Your task to perform on an android device: What is the recent news? Image 0: 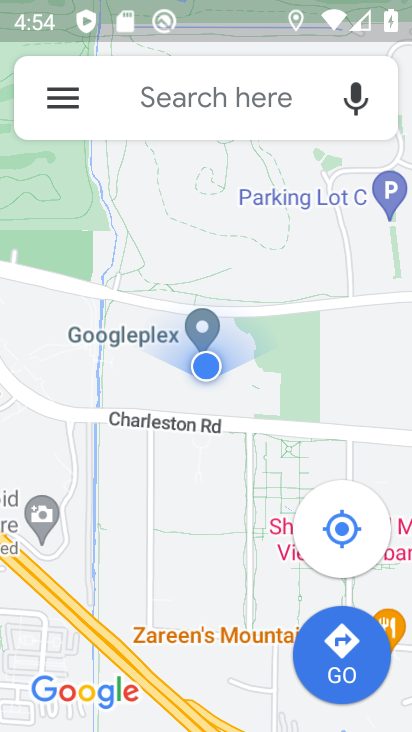
Step 0: press home button
Your task to perform on an android device: What is the recent news? Image 1: 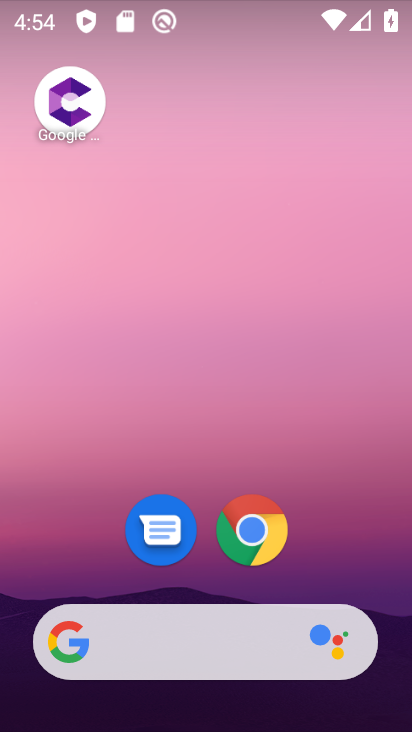
Step 1: click (198, 632)
Your task to perform on an android device: What is the recent news? Image 2: 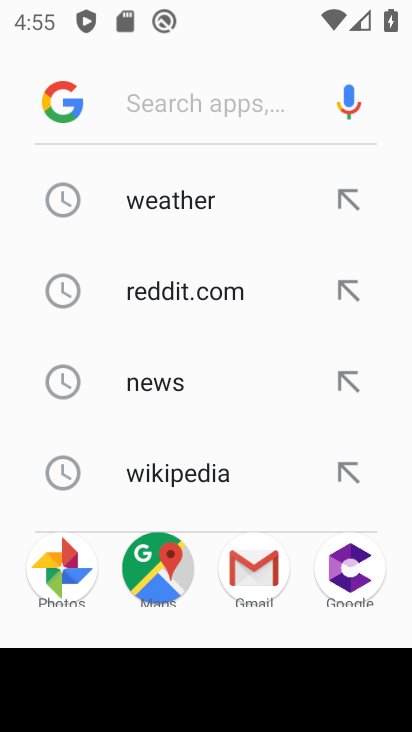
Step 2: type "recent news"
Your task to perform on an android device: What is the recent news? Image 3: 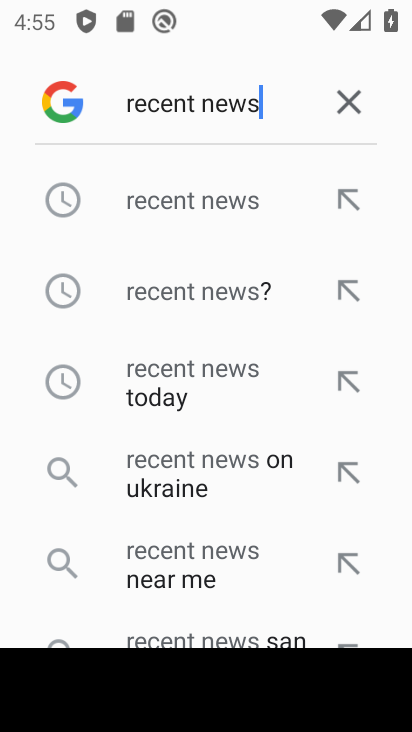
Step 3: click (203, 206)
Your task to perform on an android device: What is the recent news? Image 4: 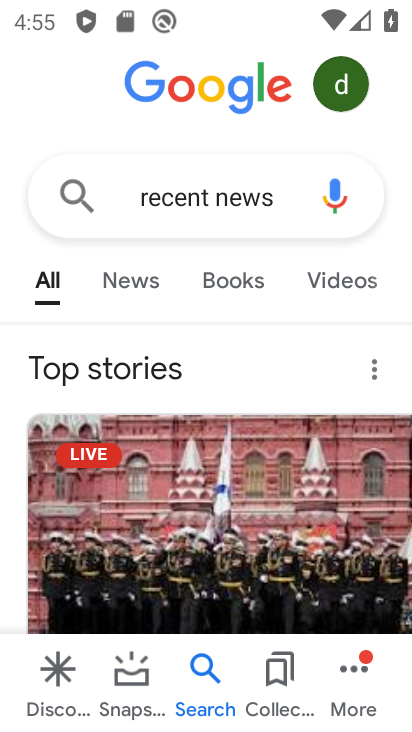
Step 4: click (132, 290)
Your task to perform on an android device: What is the recent news? Image 5: 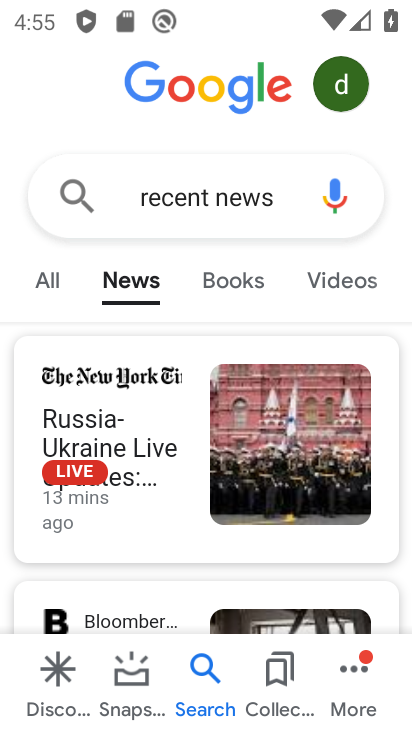
Step 5: task complete